Your task to perform on an android device: Add bose soundsport free to the cart on ebay Image 0: 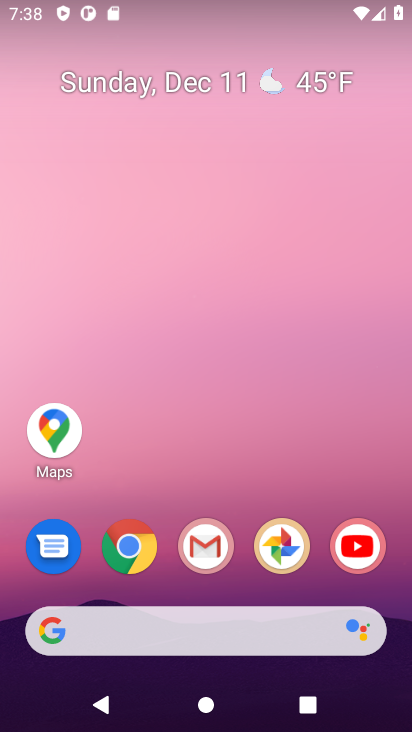
Step 0: click (129, 552)
Your task to perform on an android device: Add bose soundsport free to the cart on ebay Image 1: 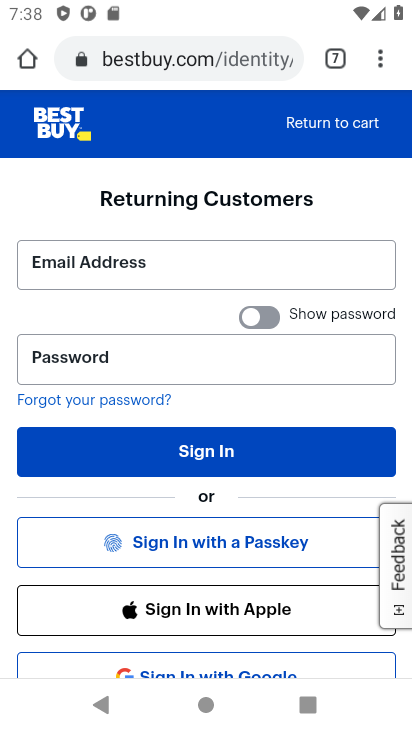
Step 1: click (186, 55)
Your task to perform on an android device: Add bose soundsport free to the cart on ebay Image 2: 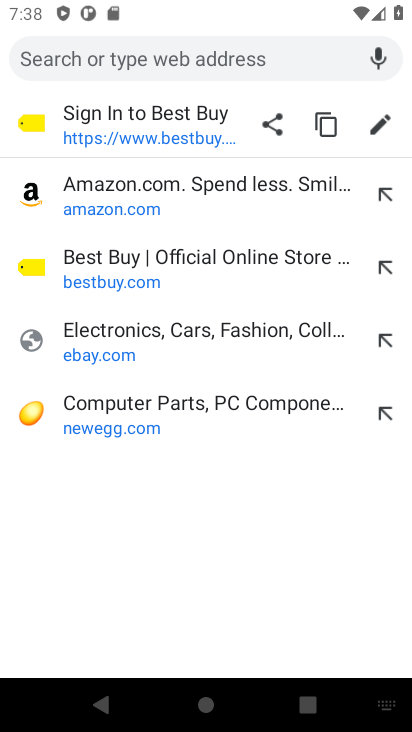
Step 2: click (104, 333)
Your task to perform on an android device: Add bose soundsport free to the cart on ebay Image 3: 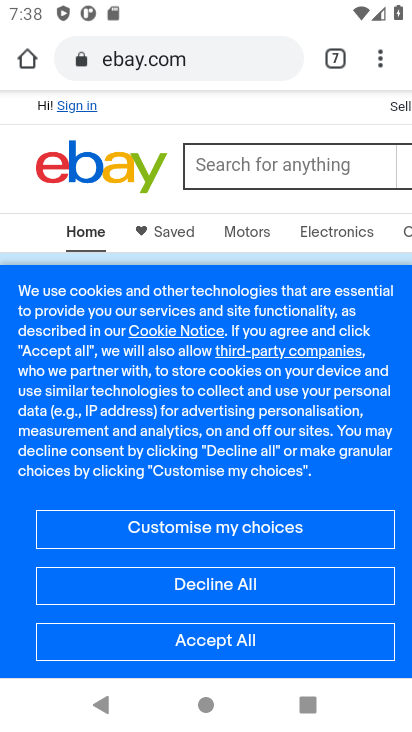
Step 3: click (255, 164)
Your task to perform on an android device: Add bose soundsport free to the cart on ebay Image 4: 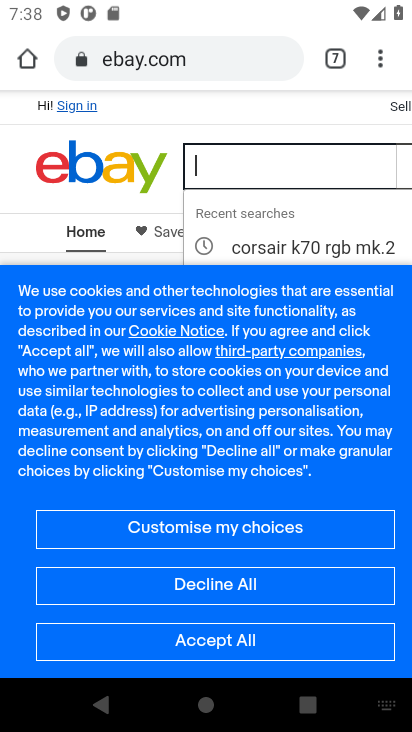
Step 4: type "bose soundsport free"
Your task to perform on an android device: Add bose soundsport free to the cart on ebay Image 5: 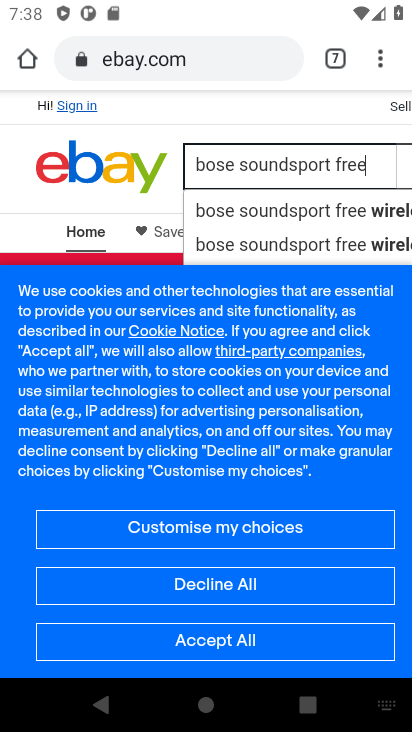
Step 5: drag from (318, 125) to (6, 154)
Your task to perform on an android device: Add bose soundsport free to the cart on ebay Image 6: 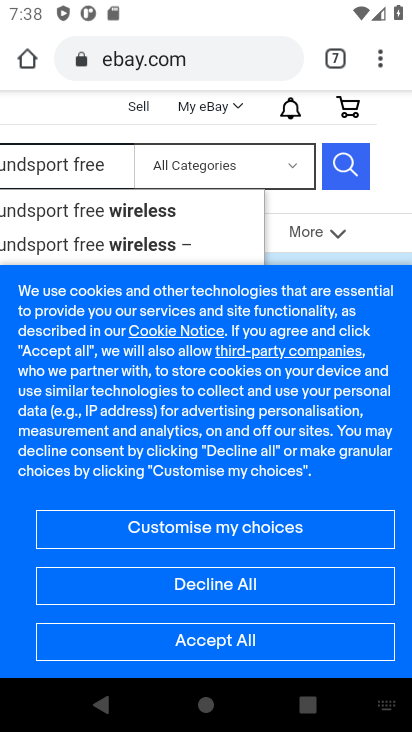
Step 6: click (353, 171)
Your task to perform on an android device: Add bose soundsport free to the cart on ebay Image 7: 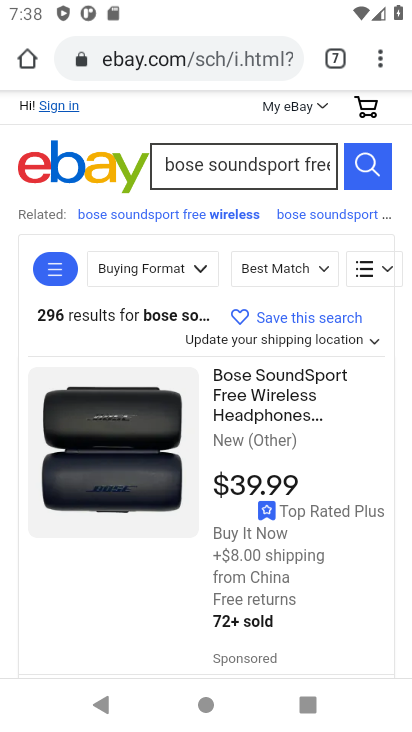
Step 7: click (233, 444)
Your task to perform on an android device: Add bose soundsport free to the cart on ebay Image 8: 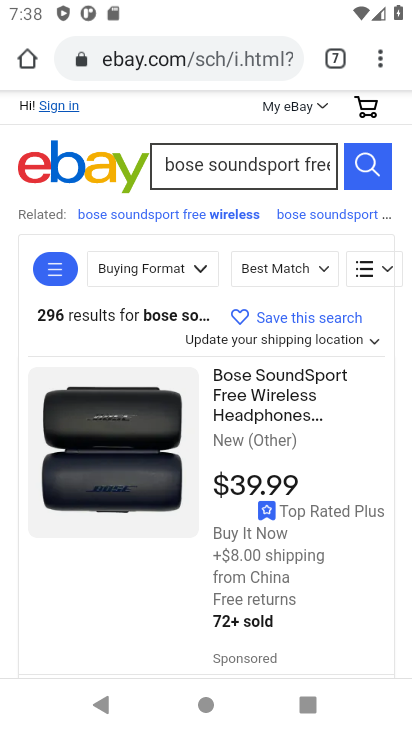
Step 8: click (237, 406)
Your task to perform on an android device: Add bose soundsport free to the cart on ebay Image 9: 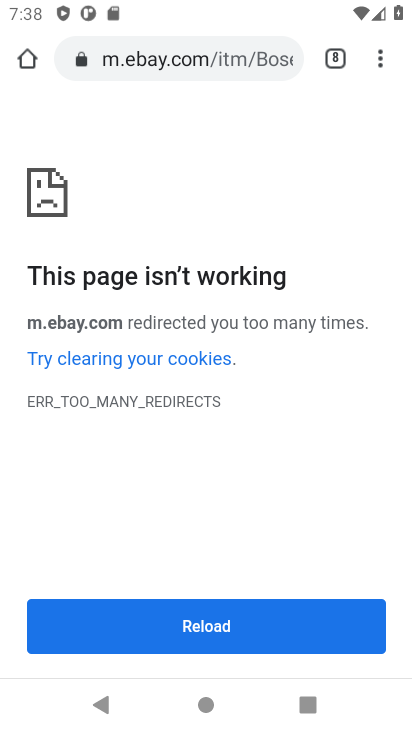
Step 9: task complete